Your task to perform on an android device: move a message to another label in the gmail app Image 0: 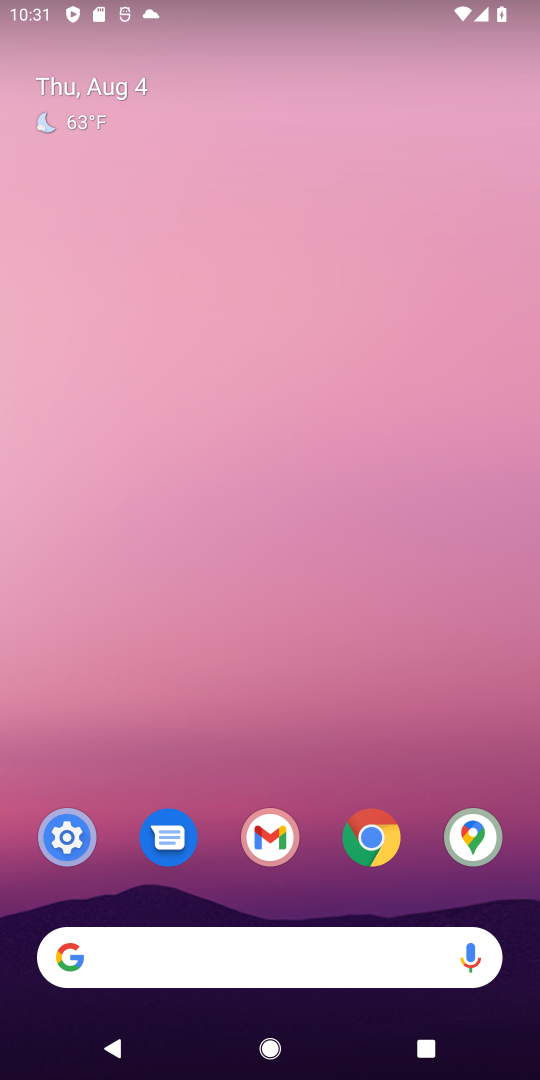
Step 0: drag from (245, 905) to (288, 214)
Your task to perform on an android device: move a message to another label in the gmail app Image 1: 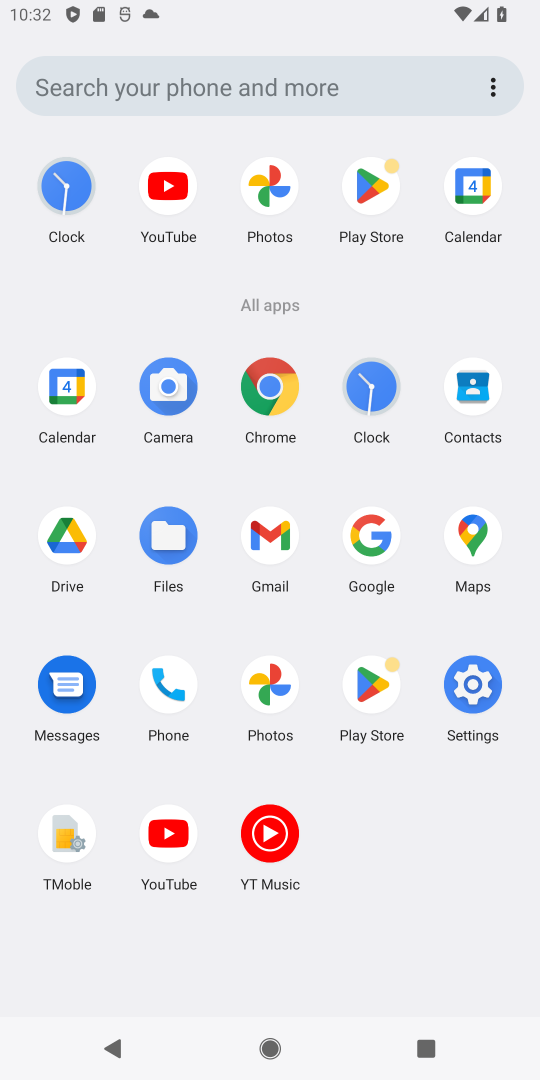
Step 1: click (252, 545)
Your task to perform on an android device: move a message to another label in the gmail app Image 2: 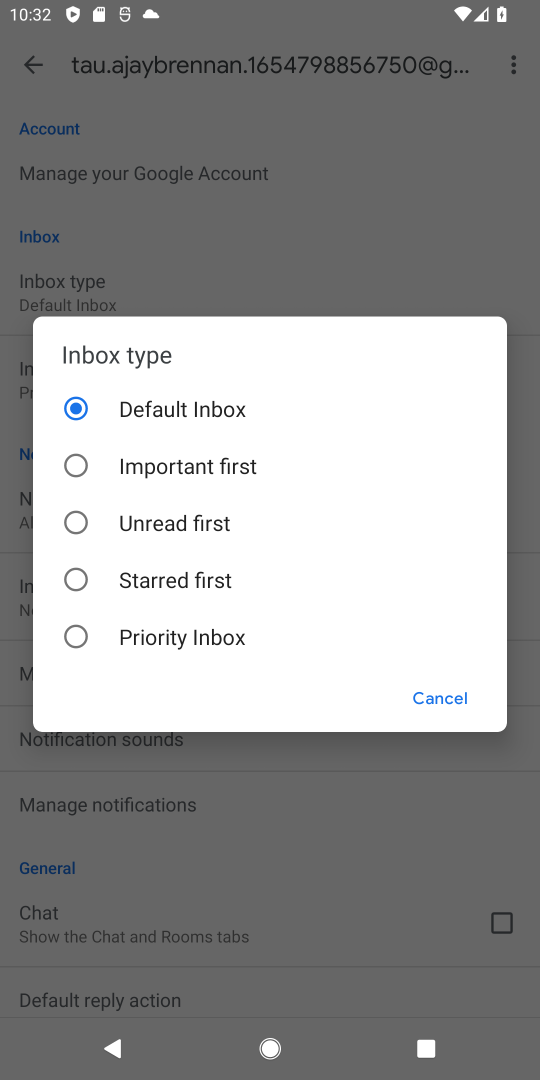
Step 2: click (238, 267)
Your task to perform on an android device: move a message to another label in the gmail app Image 3: 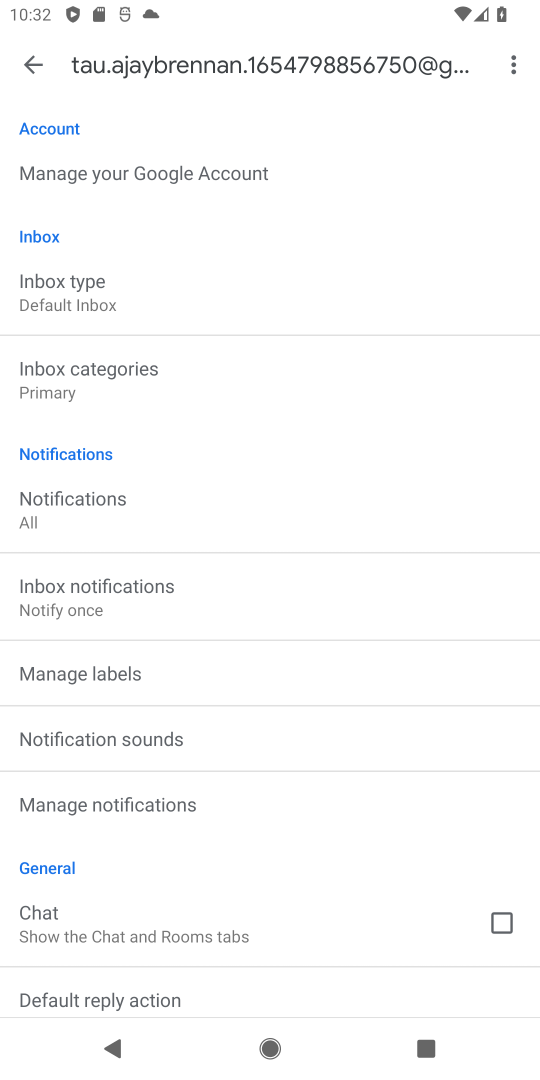
Step 3: click (10, 40)
Your task to perform on an android device: move a message to another label in the gmail app Image 4: 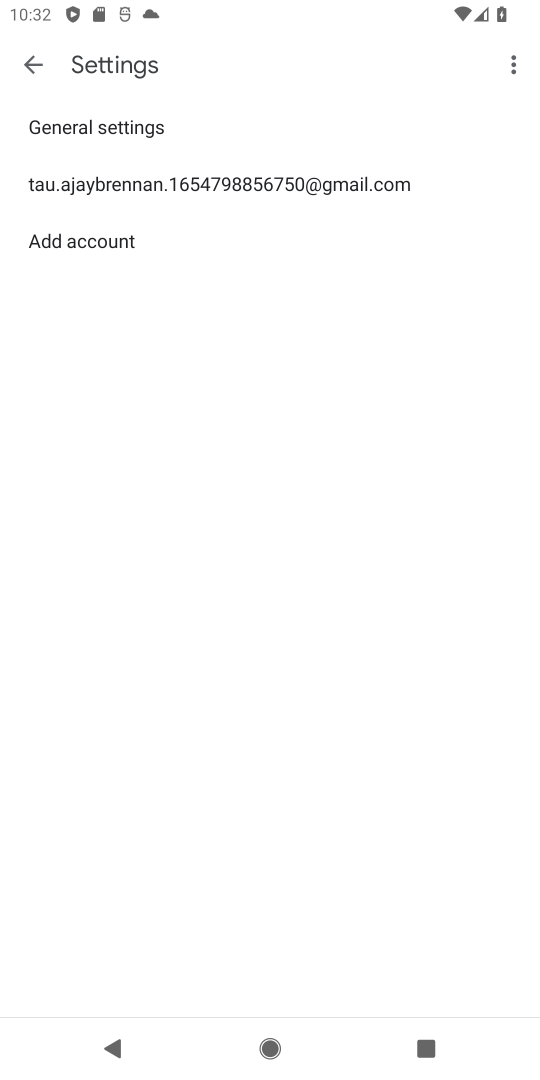
Step 4: click (18, 53)
Your task to perform on an android device: move a message to another label in the gmail app Image 5: 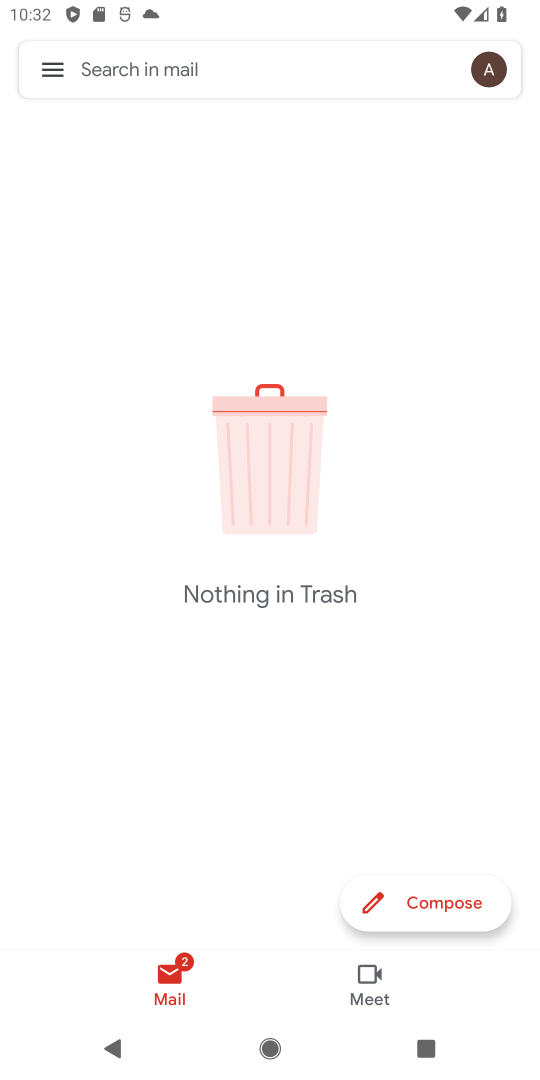
Step 5: click (43, 70)
Your task to perform on an android device: move a message to another label in the gmail app Image 6: 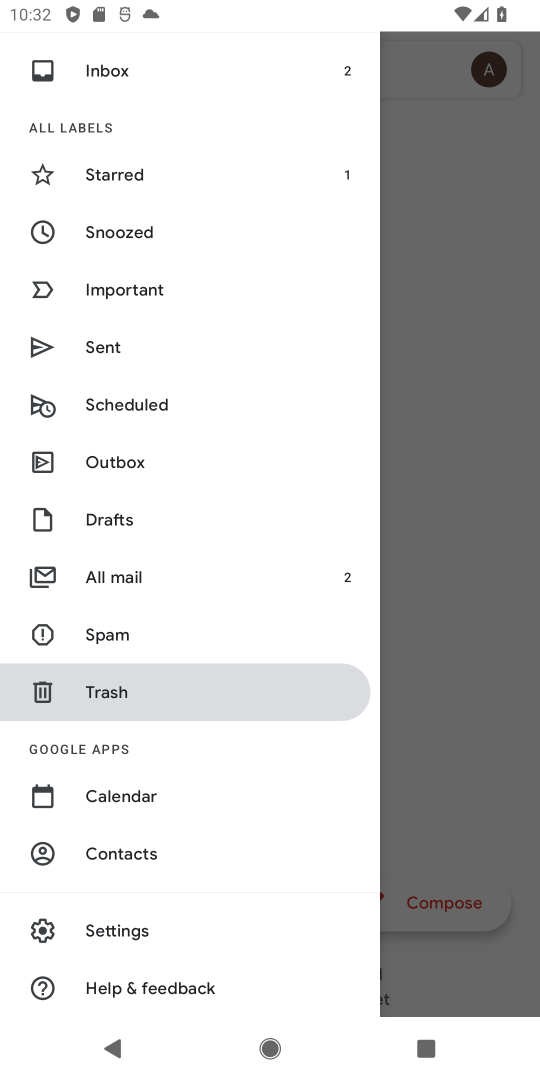
Step 6: click (130, 583)
Your task to perform on an android device: move a message to another label in the gmail app Image 7: 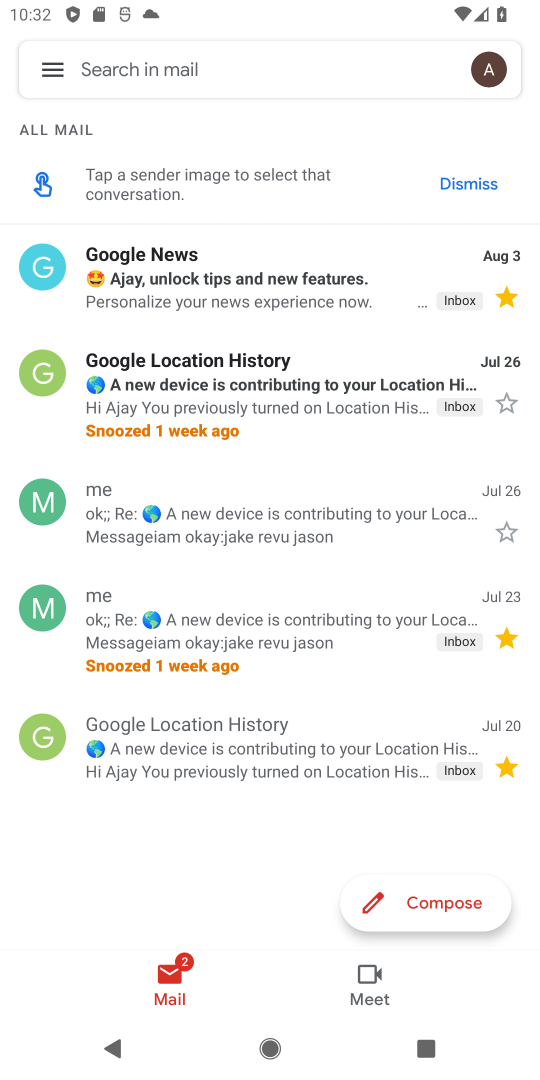
Step 7: click (270, 279)
Your task to perform on an android device: move a message to another label in the gmail app Image 8: 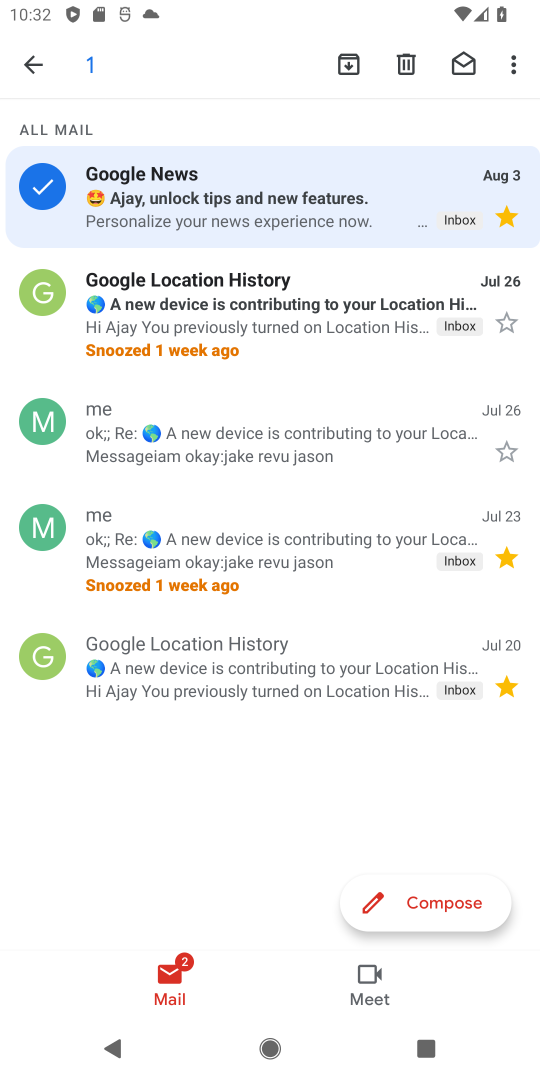
Step 8: click (524, 53)
Your task to perform on an android device: move a message to another label in the gmail app Image 9: 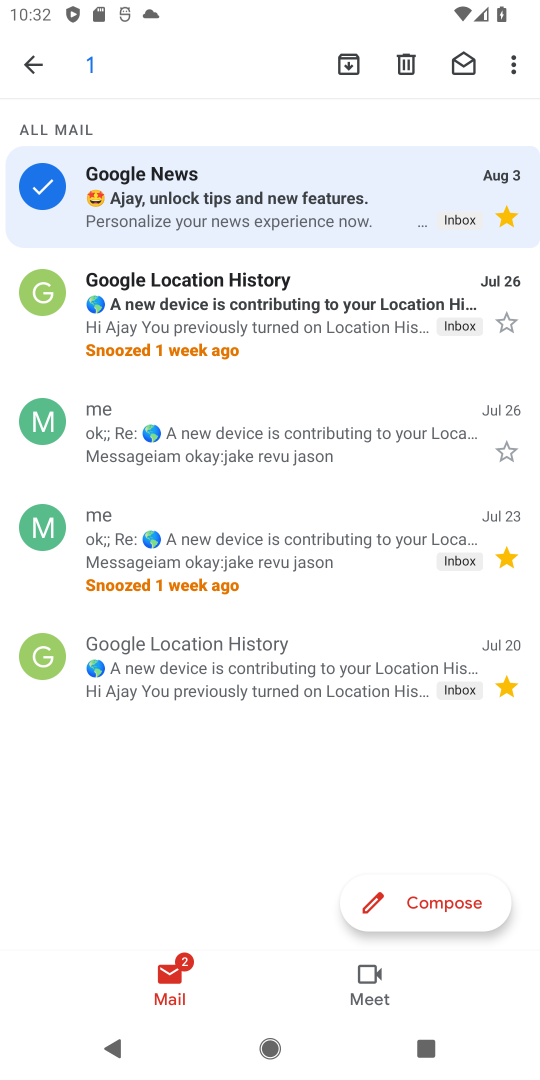
Step 9: click (509, 47)
Your task to perform on an android device: move a message to another label in the gmail app Image 10: 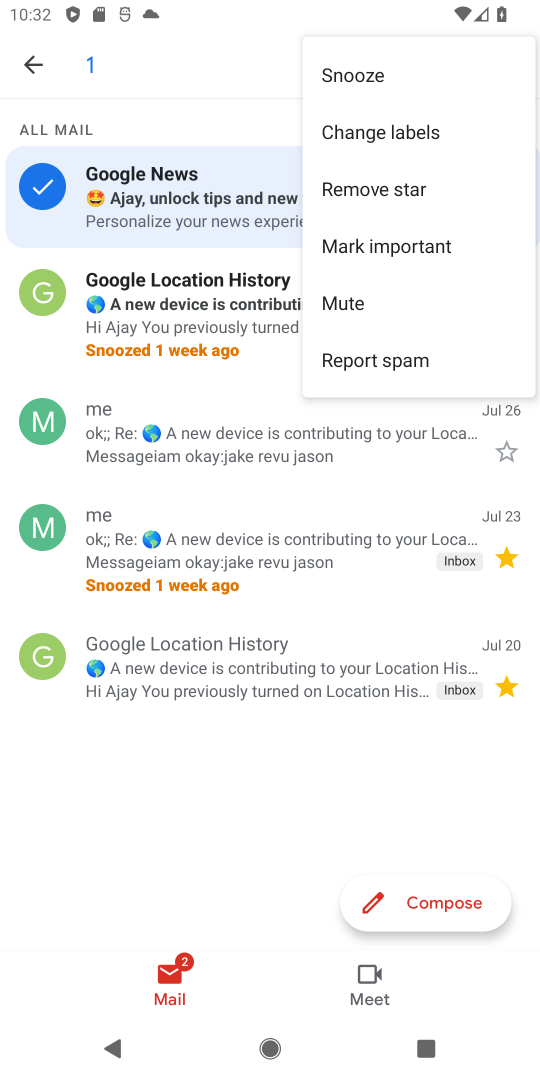
Step 10: click (401, 124)
Your task to perform on an android device: move a message to another label in the gmail app Image 11: 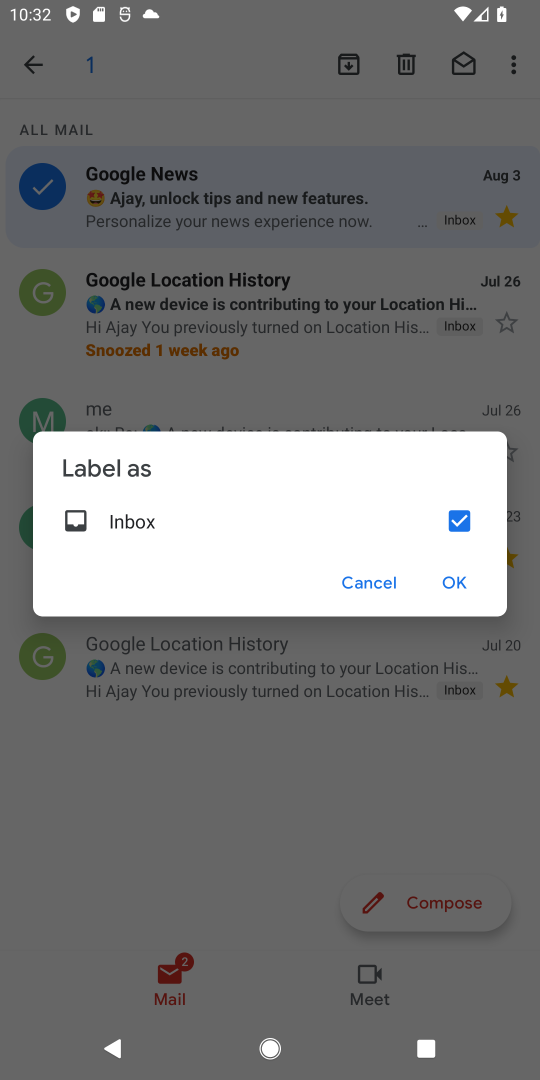
Step 11: click (443, 570)
Your task to perform on an android device: move a message to another label in the gmail app Image 12: 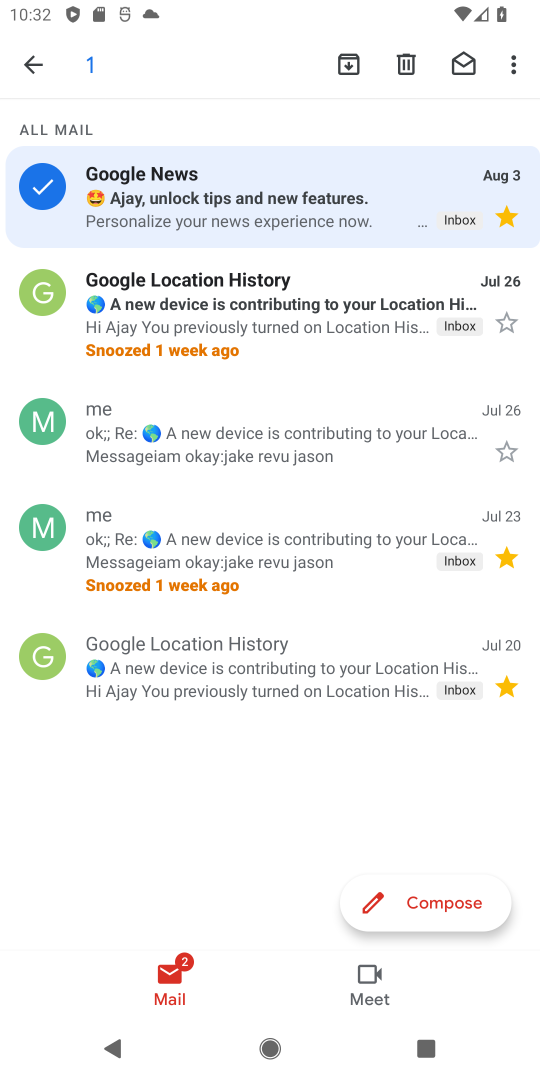
Step 12: task complete